Your task to perform on an android device: Go to Amazon Image 0: 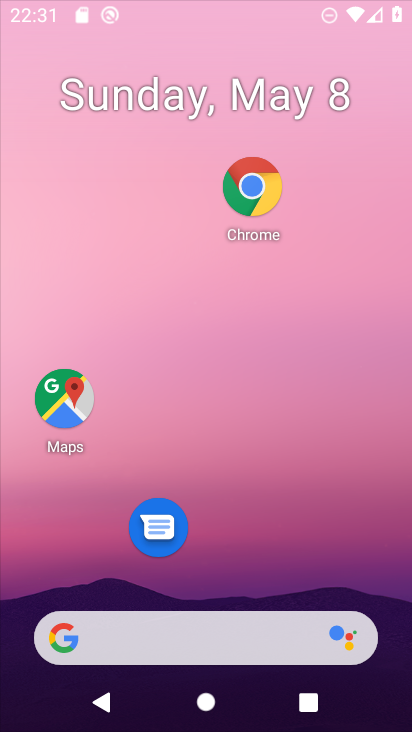
Step 0: drag from (314, 468) to (310, 295)
Your task to perform on an android device: Go to Amazon Image 1: 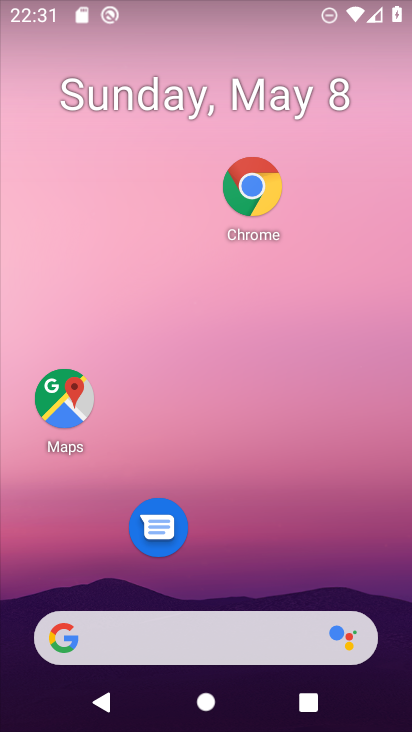
Step 1: drag from (268, 595) to (306, 189)
Your task to perform on an android device: Go to Amazon Image 2: 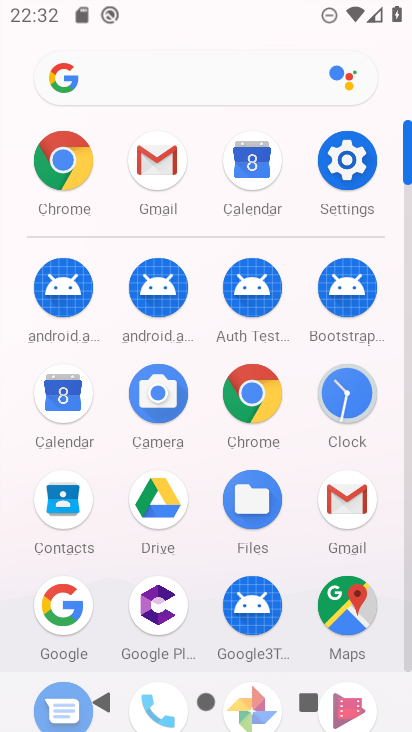
Step 2: click (260, 380)
Your task to perform on an android device: Go to Amazon Image 3: 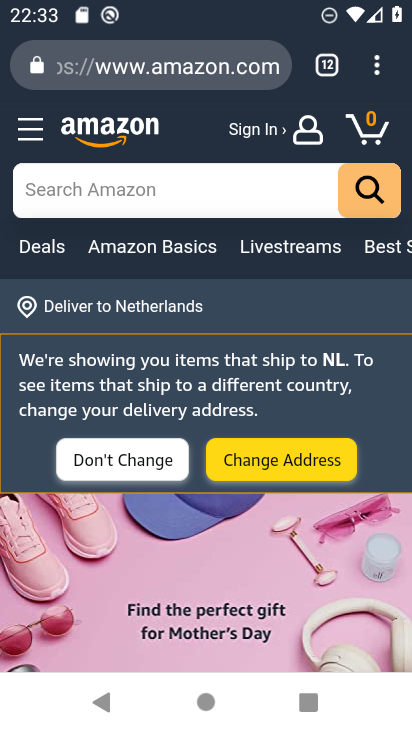
Step 3: task complete